Your task to perform on an android device: Toggle the flashlight Image 0: 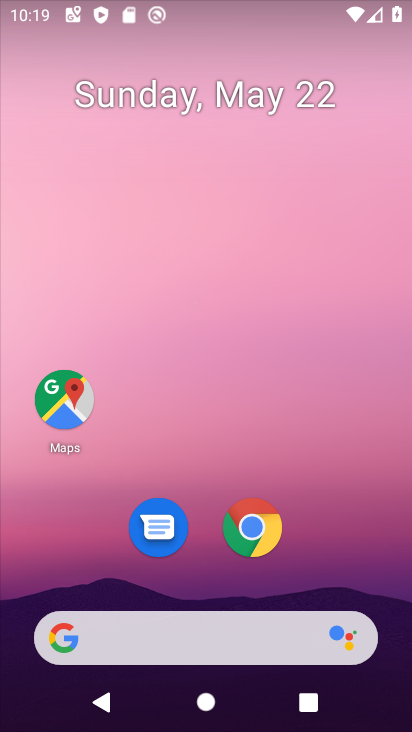
Step 0: drag from (367, 541) to (367, 273)
Your task to perform on an android device: Toggle the flashlight Image 1: 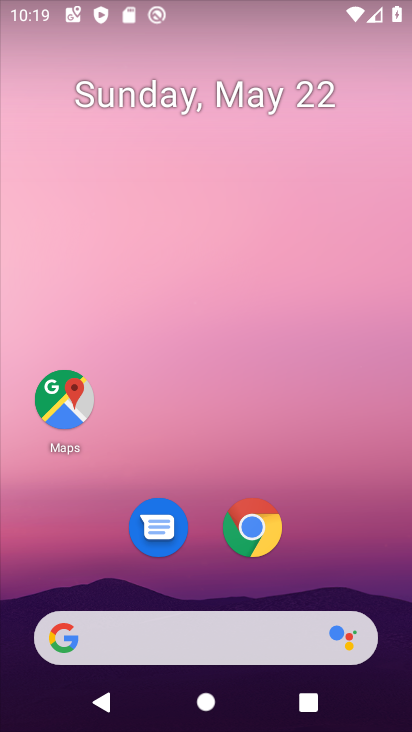
Step 1: drag from (340, 548) to (305, 186)
Your task to perform on an android device: Toggle the flashlight Image 2: 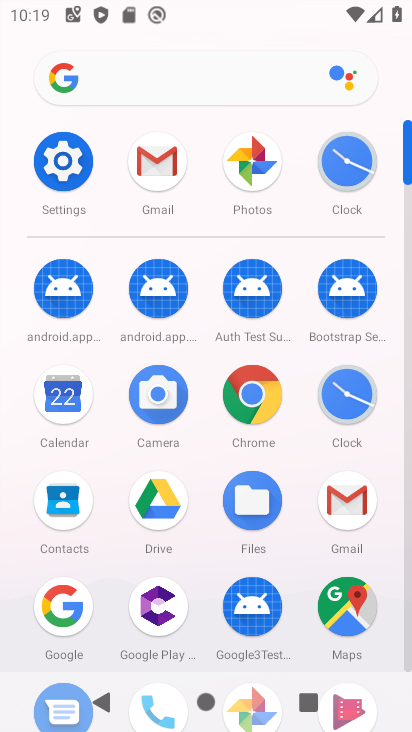
Step 2: click (51, 177)
Your task to perform on an android device: Toggle the flashlight Image 3: 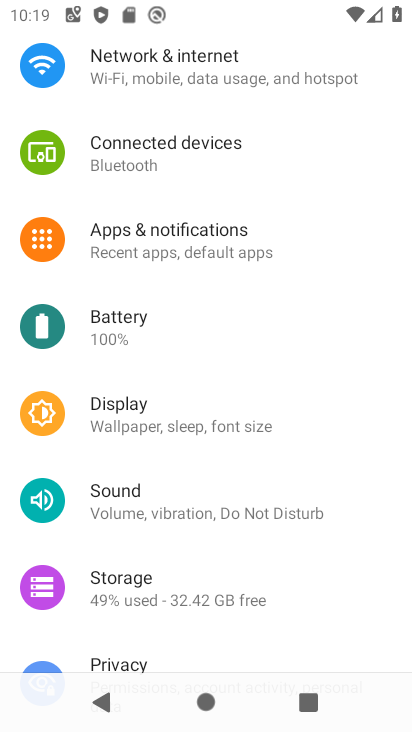
Step 3: click (157, 268)
Your task to perform on an android device: Toggle the flashlight Image 4: 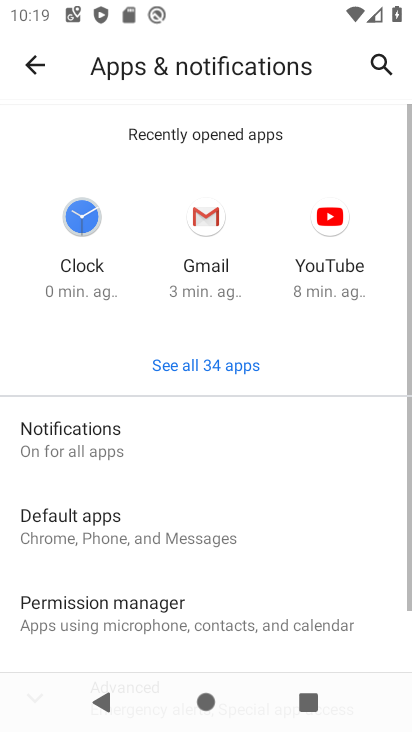
Step 4: task complete